Your task to perform on an android device: Go to CNN.com Image 0: 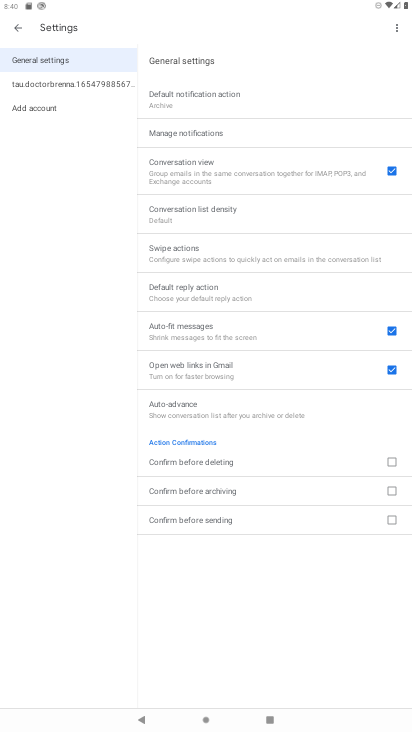
Step 0: click (17, 29)
Your task to perform on an android device: Go to CNN.com Image 1: 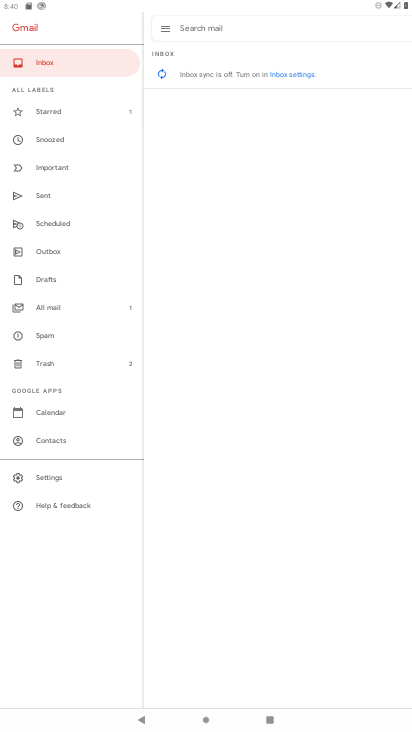
Step 1: press back button
Your task to perform on an android device: Go to CNN.com Image 2: 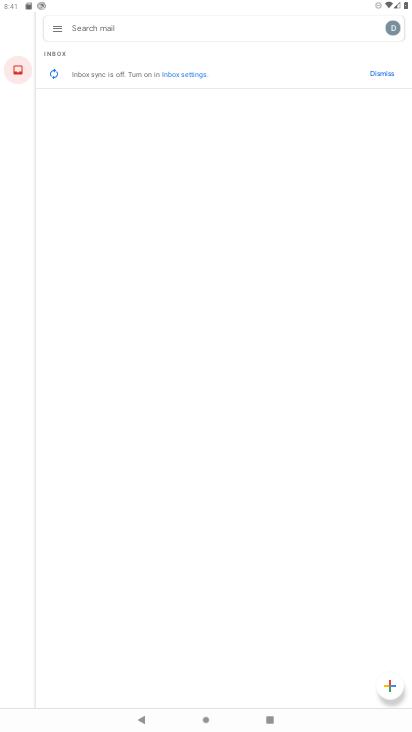
Step 2: press back button
Your task to perform on an android device: Go to CNN.com Image 3: 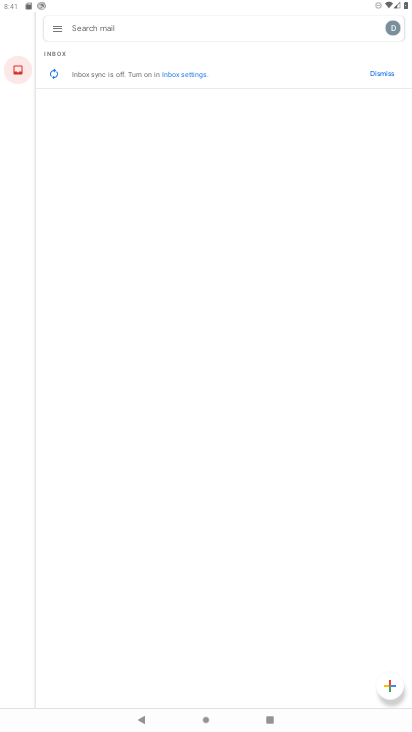
Step 3: press home button
Your task to perform on an android device: Go to CNN.com Image 4: 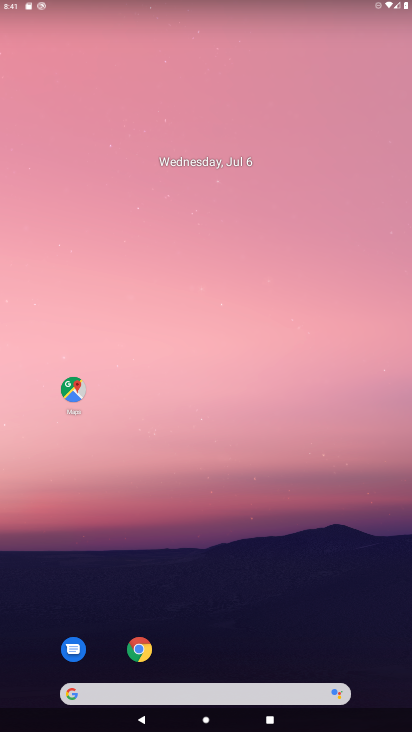
Step 4: drag from (188, 564) to (205, 17)
Your task to perform on an android device: Go to CNN.com Image 5: 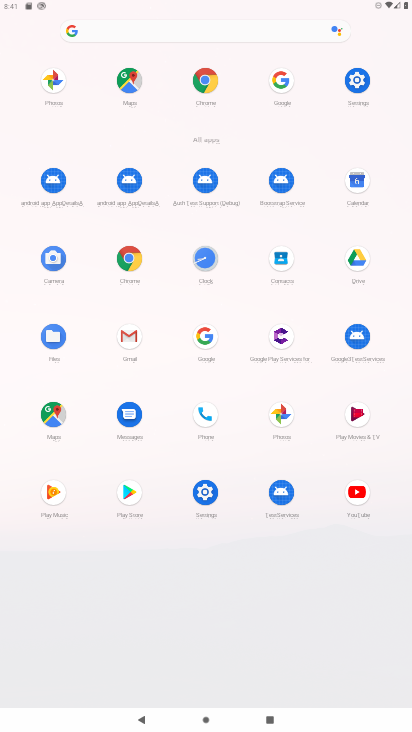
Step 5: click (208, 77)
Your task to perform on an android device: Go to CNN.com Image 6: 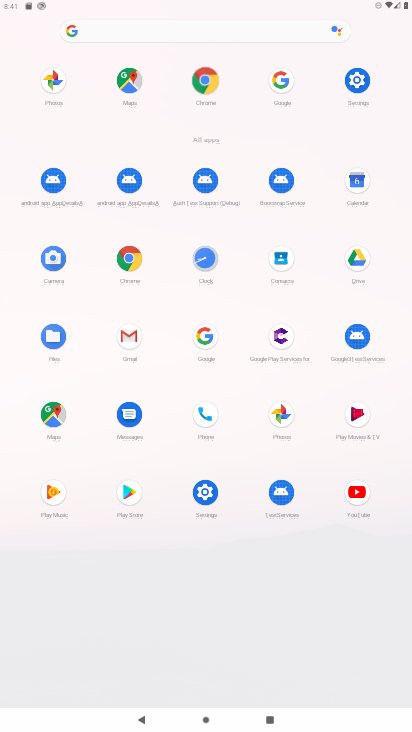
Step 6: click (211, 83)
Your task to perform on an android device: Go to CNN.com Image 7: 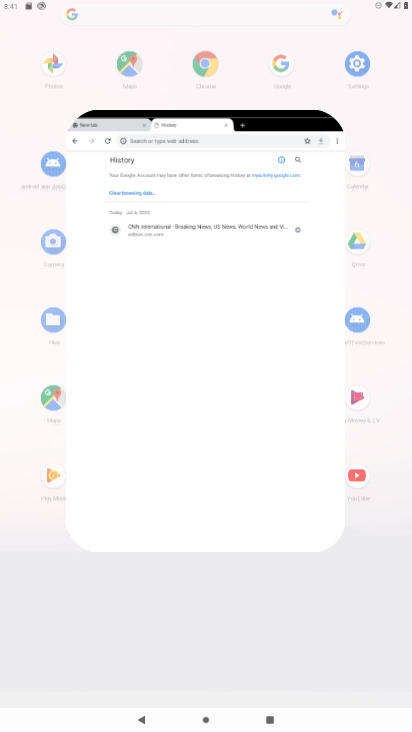
Step 7: click (212, 84)
Your task to perform on an android device: Go to CNN.com Image 8: 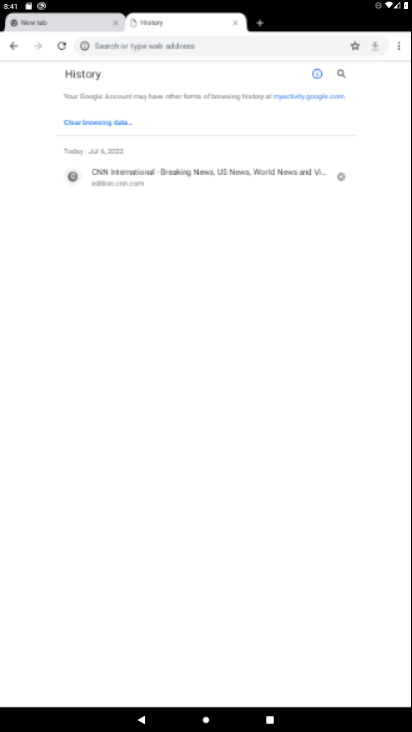
Step 8: click (214, 86)
Your task to perform on an android device: Go to CNN.com Image 9: 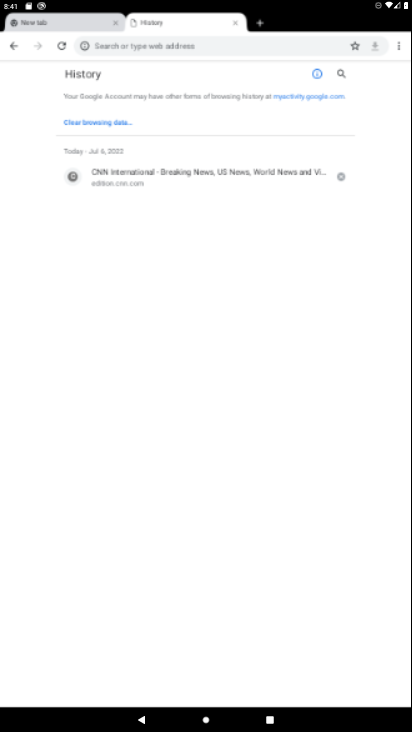
Step 9: click (214, 86)
Your task to perform on an android device: Go to CNN.com Image 10: 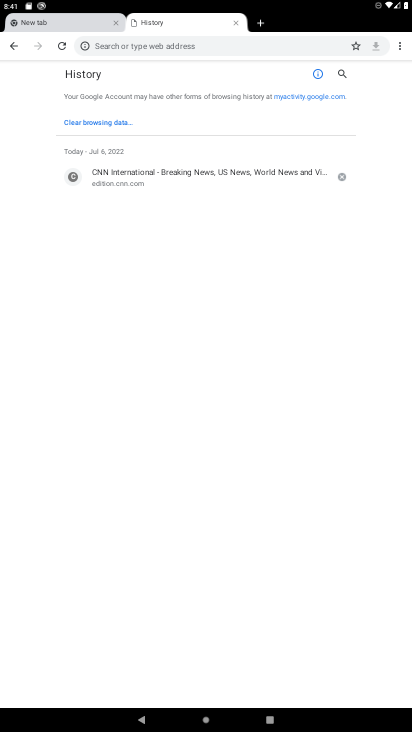
Step 10: click (98, 50)
Your task to perform on an android device: Go to CNN.com Image 11: 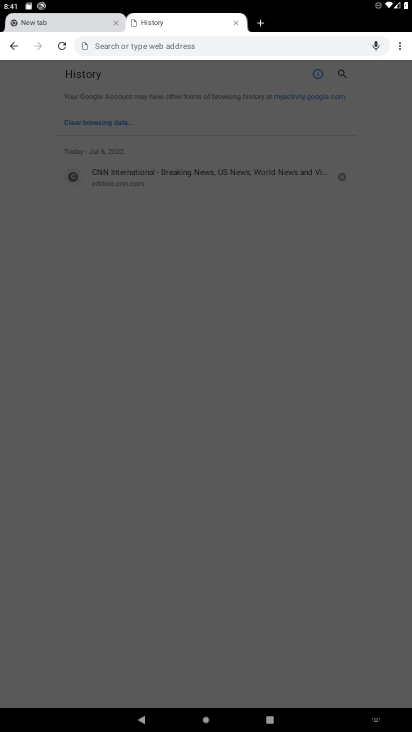
Step 11: click (240, 24)
Your task to perform on an android device: Go to CNN.com Image 12: 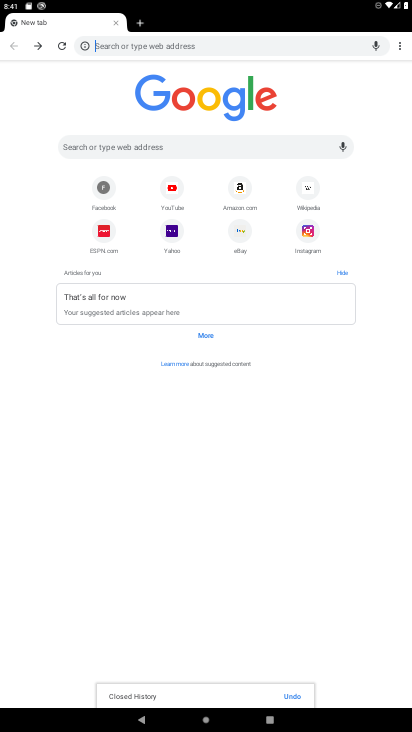
Step 12: click (94, 40)
Your task to perform on an android device: Go to CNN.com Image 13: 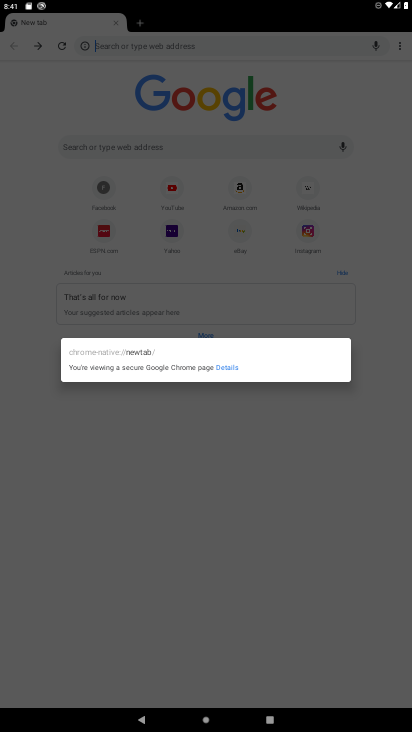
Step 13: click (139, 442)
Your task to perform on an android device: Go to CNN.com Image 14: 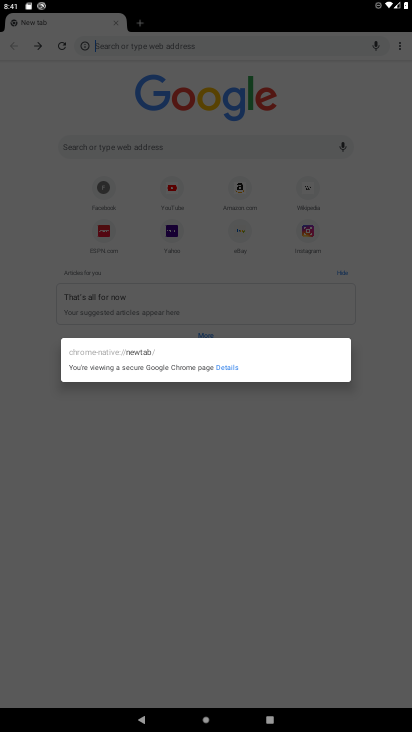
Step 14: click (146, 415)
Your task to perform on an android device: Go to CNN.com Image 15: 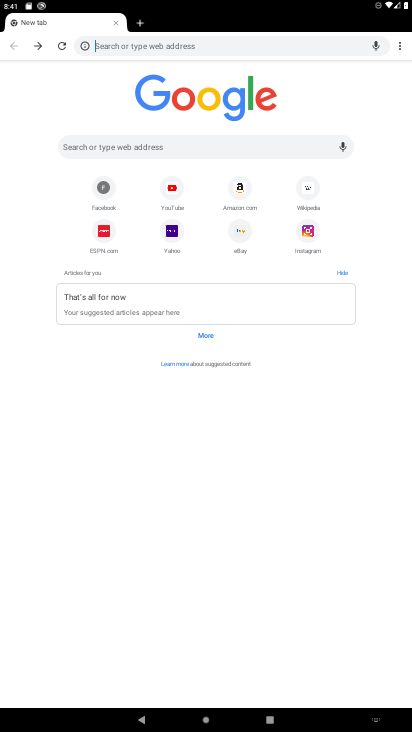
Step 15: click (142, 414)
Your task to perform on an android device: Go to CNN.com Image 16: 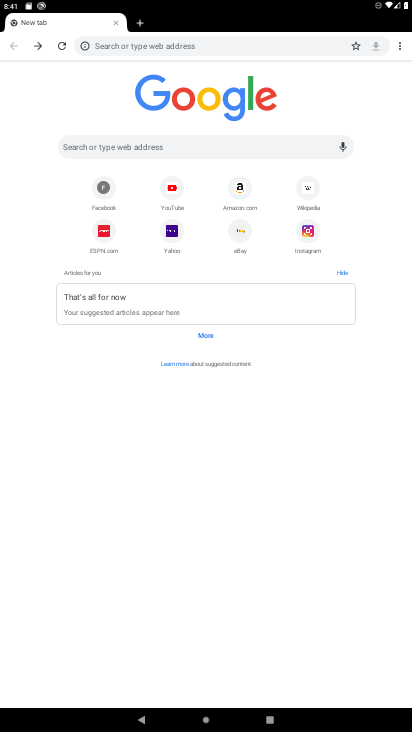
Step 16: click (103, 41)
Your task to perform on an android device: Go to CNN.com Image 17: 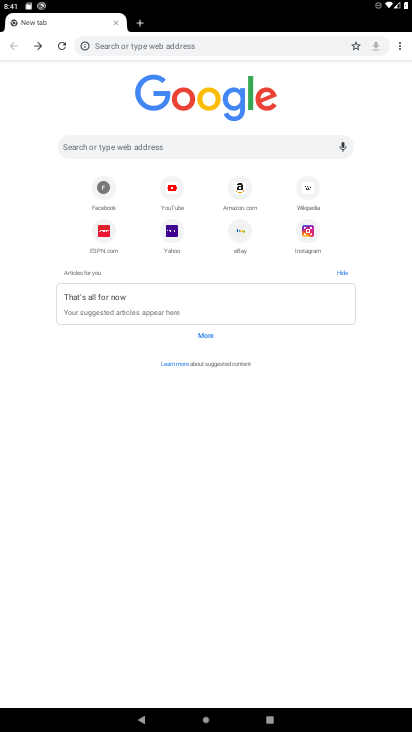
Step 17: click (104, 42)
Your task to perform on an android device: Go to CNN.com Image 18: 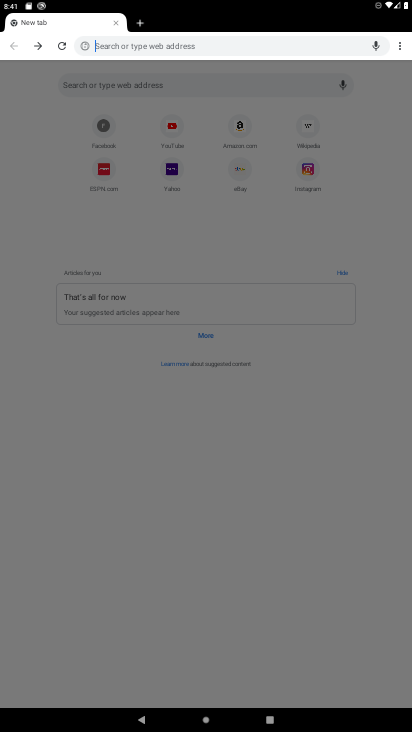
Step 18: click (105, 43)
Your task to perform on an android device: Go to CNN.com Image 19: 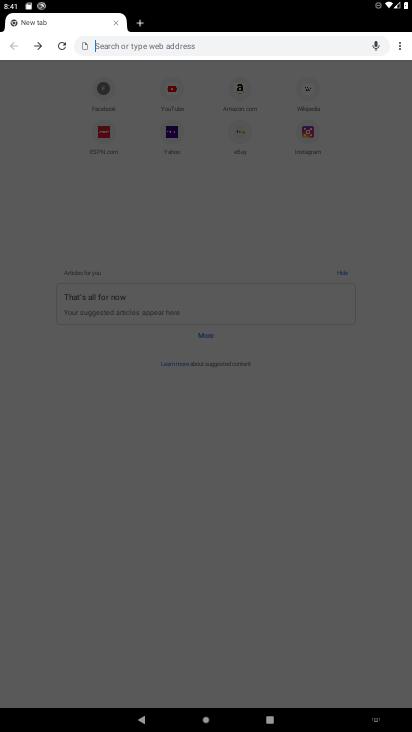
Step 19: click (107, 48)
Your task to perform on an android device: Go to CNN.com Image 20: 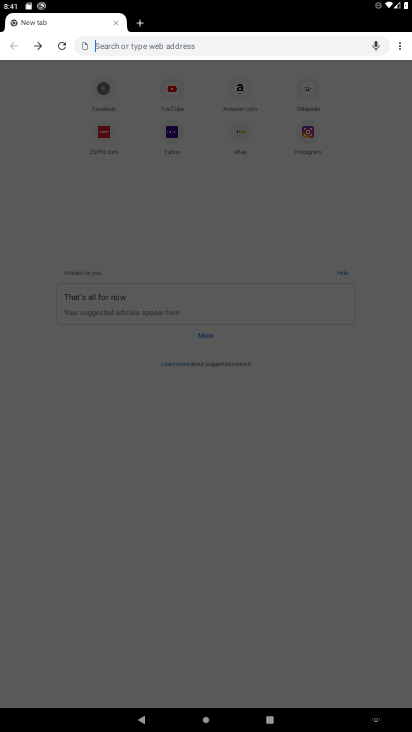
Step 20: type "CNN>com"
Your task to perform on an android device: Go to CNN.com Image 21: 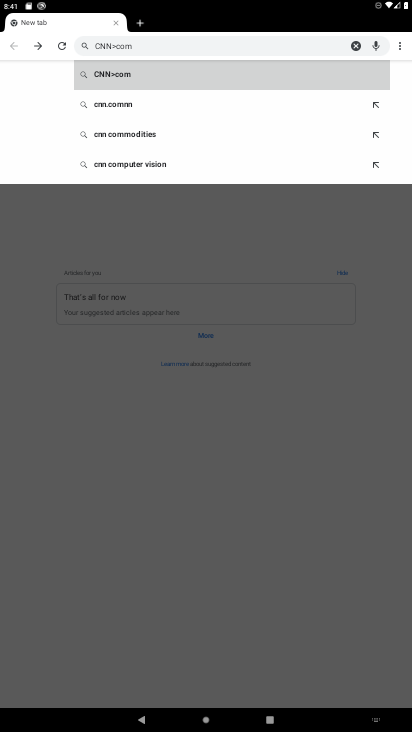
Step 21: click (128, 95)
Your task to perform on an android device: Go to CNN.com Image 22: 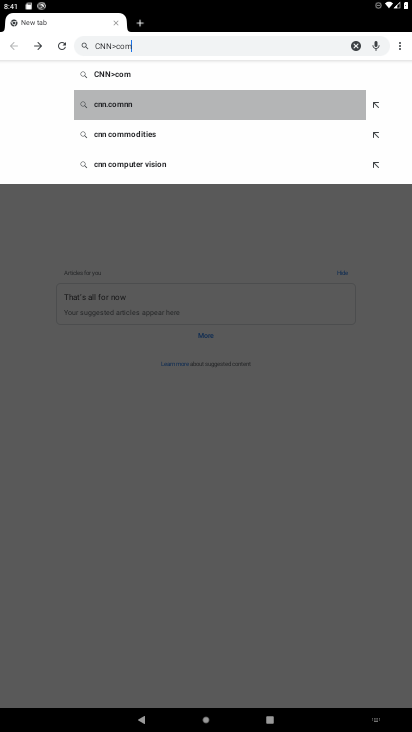
Step 22: click (135, 103)
Your task to perform on an android device: Go to CNN.com Image 23: 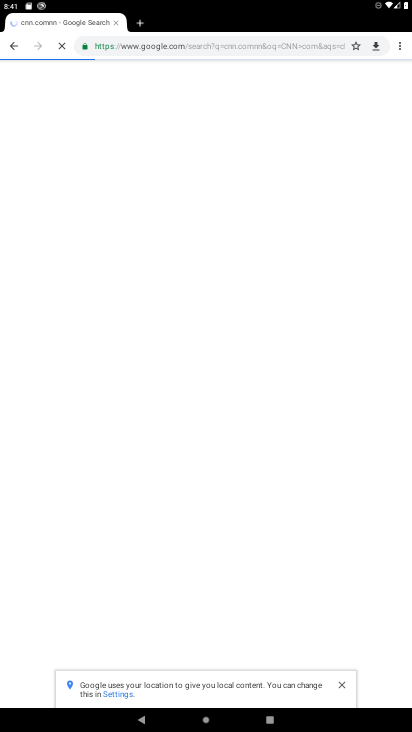
Step 23: click (140, 106)
Your task to perform on an android device: Go to CNN.com Image 24: 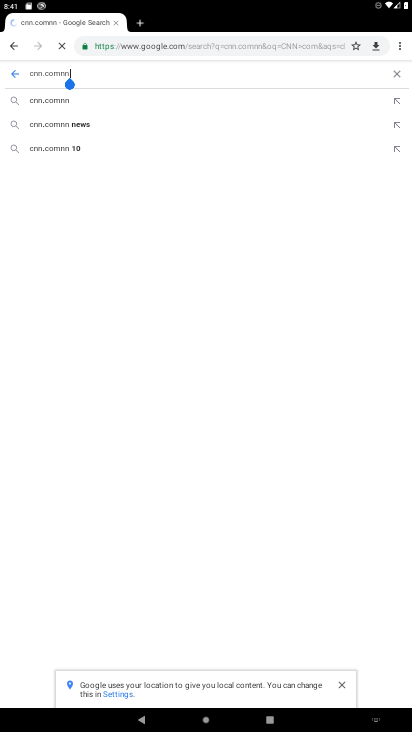
Step 24: click (396, 101)
Your task to perform on an android device: Go to CNN.com Image 25: 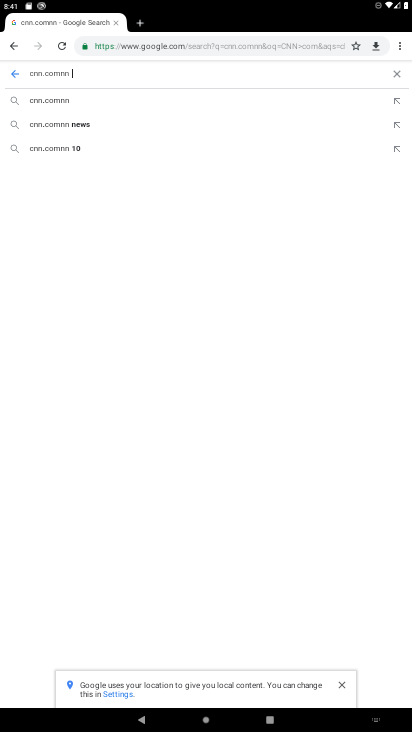
Step 25: click (398, 101)
Your task to perform on an android device: Go to CNN.com Image 26: 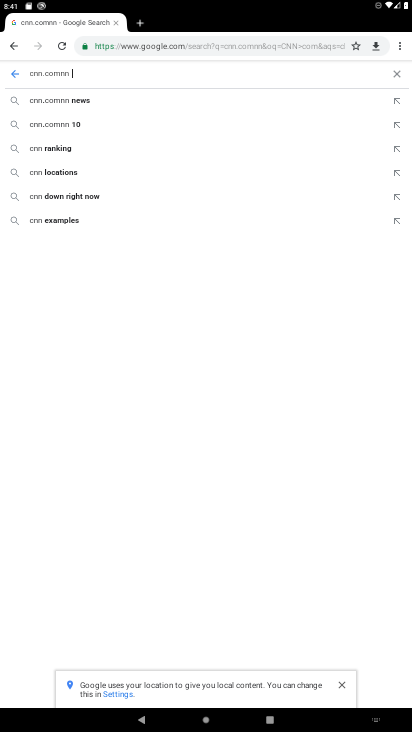
Step 26: click (398, 101)
Your task to perform on an android device: Go to CNN.com Image 27: 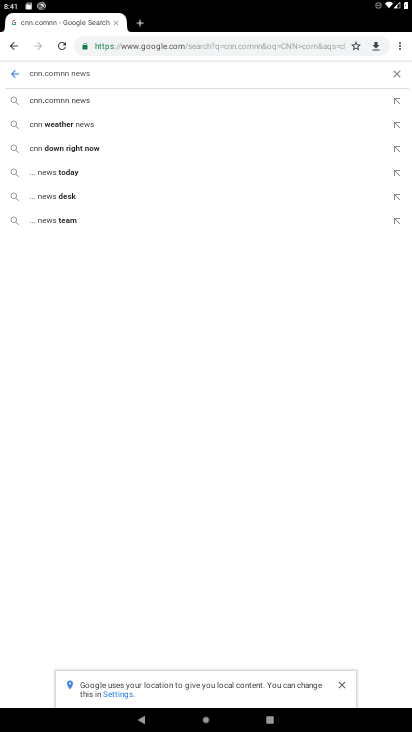
Step 27: click (403, 107)
Your task to perform on an android device: Go to CNN.com Image 28: 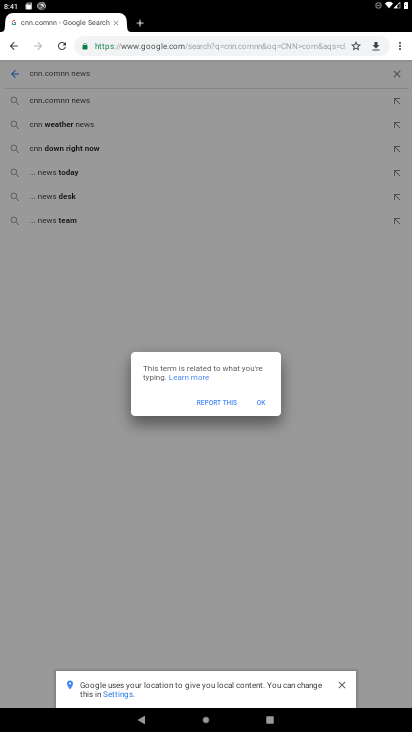
Step 28: task complete